Your task to perform on an android device: Do I have any events tomorrow? Image 0: 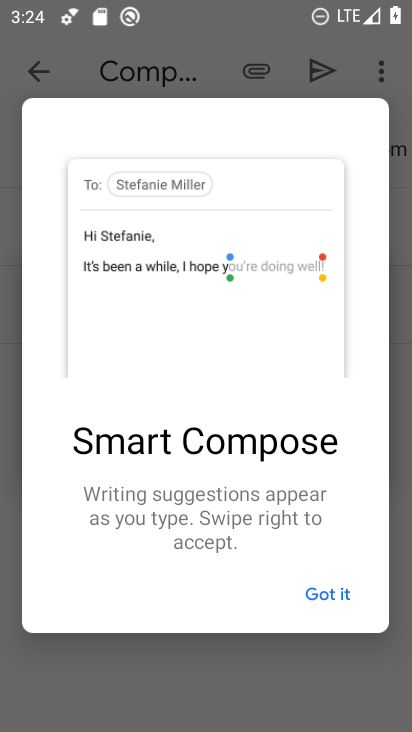
Step 0: press home button
Your task to perform on an android device: Do I have any events tomorrow? Image 1: 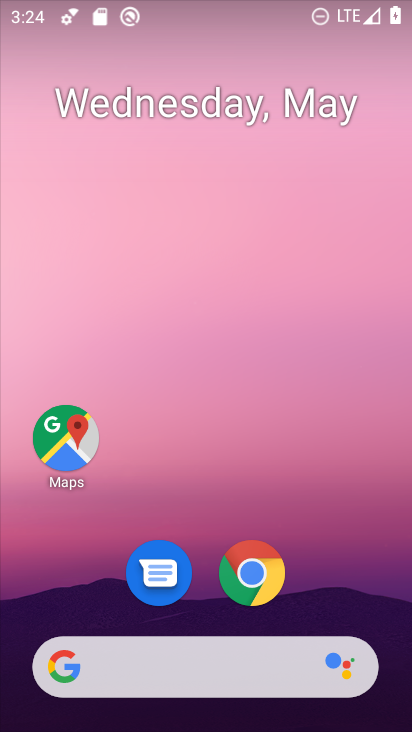
Step 1: drag from (312, 587) to (330, 0)
Your task to perform on an android device: Do I have any events tomorrow? Image 2: 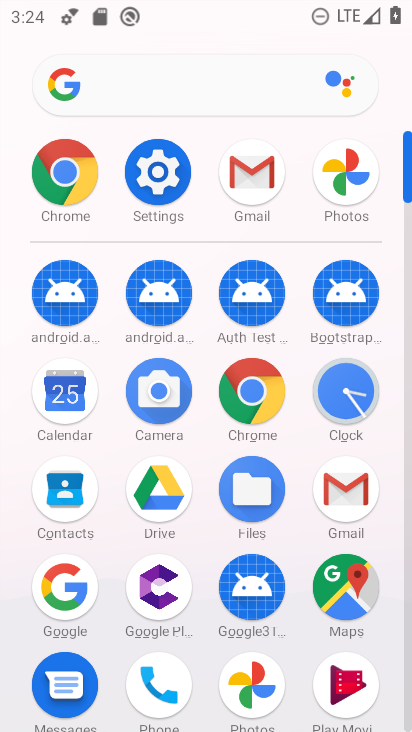
Step 2: click (51, 405)
Your task to perform on an android device: Do I have any events tomorrow? Image 3: 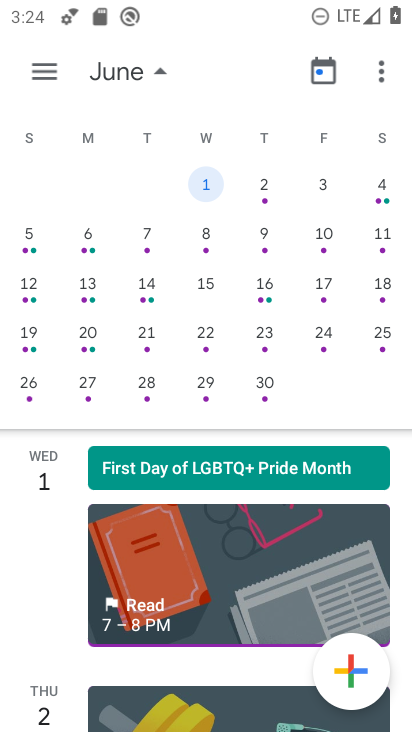
Step 3: drag from (97, 343) to (405, 440)
Your task to perform on an android device: Do I have any events tomorrow? Image 4: 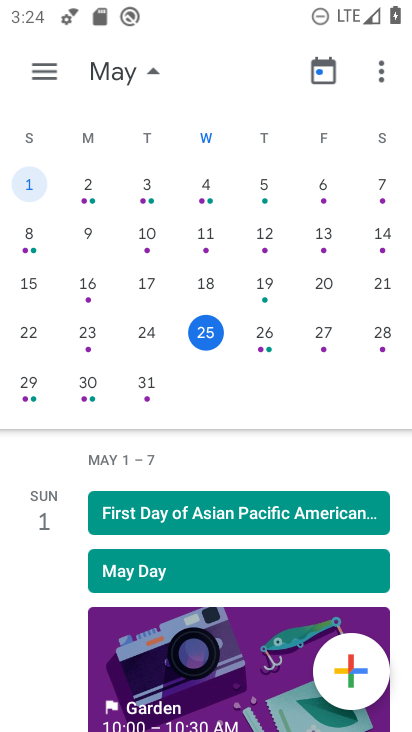
Step 4: click (255, 343)
Your task to perform on an android device: Do I have any events tomorrow? Image 5: 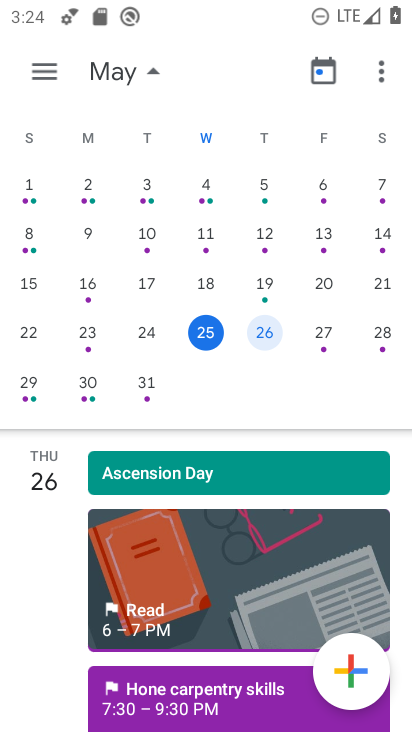
Step 5: task complete